Your task to perform on an android device: Open Android settings Image 0: 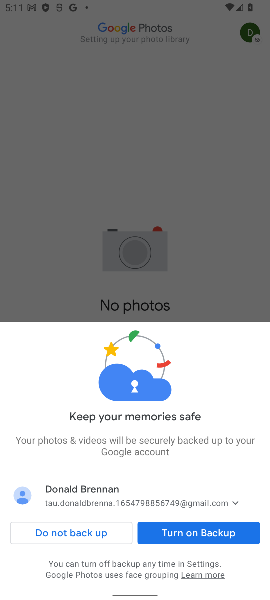
Step 0: press home button
Your task to perform on an android device: Open Android settings Image 1: 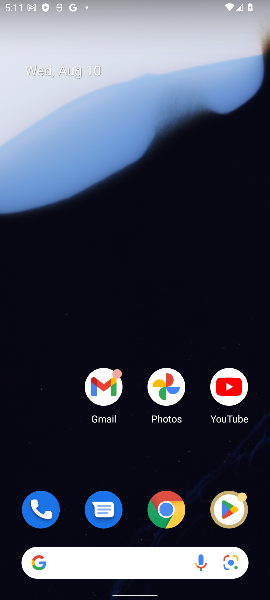
Step 1: drag from (131, 477) to (158, 156)
Your task to perform on an android device: Open Android settings Image 2: 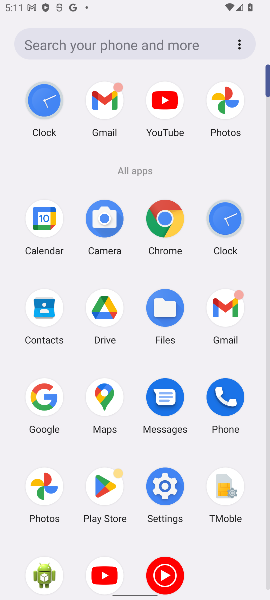
Step 2: click (167, 483)
Your task to perform on an android device: Open Android settings Image 3: 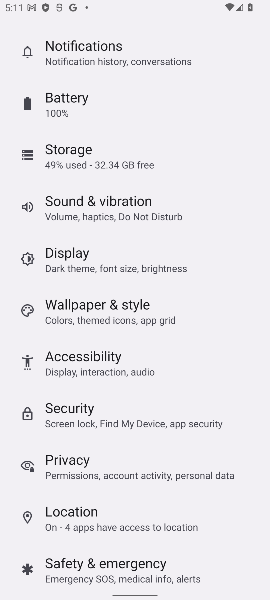
Step 3: task complete